Your task to perform on an android device: remove spam from my inbox in the gmail app Image 0: 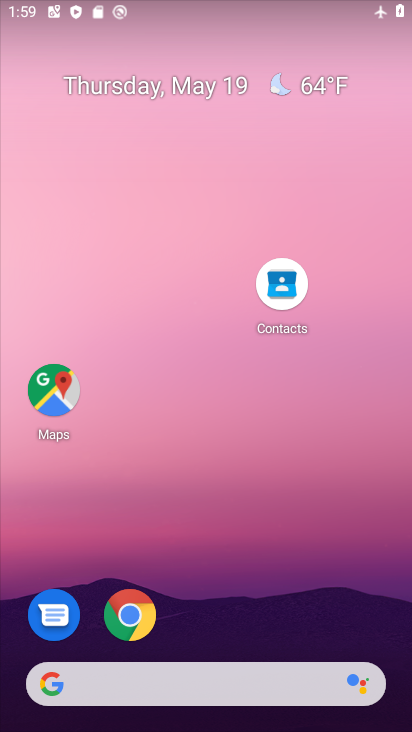
Step 0: drag from (188, 644) to (278, 84)
Your task to perform on an android device: remove spam from my inbox in the gmail app Image 1: 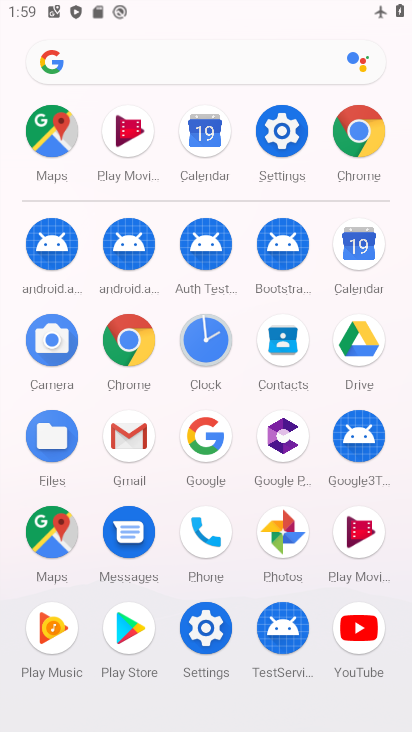
Step 1: click (133, 448)
Your task to perform on an android device: remove spam from my inbox in the gmail app Image 2: 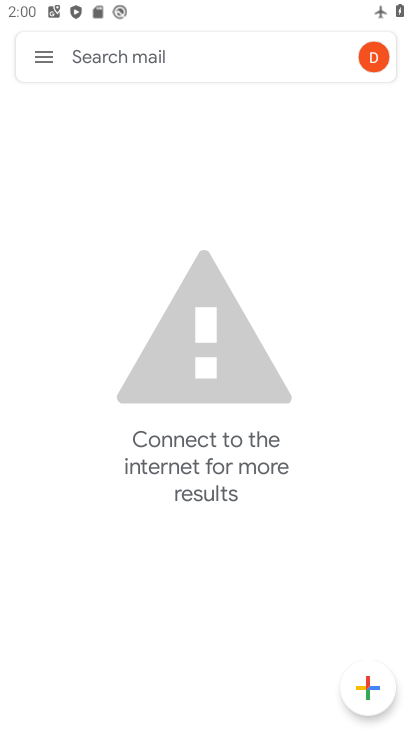
Step 2: click (44, 66)
Your task to perform on an android device: remove spam from my inbox in the gmail app Image 3: 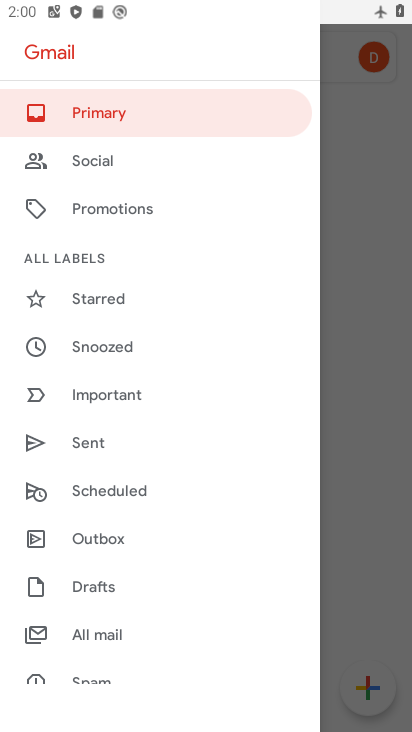
Step 3: drag from (138, 573) to (199, 203)
Your task to perform on an android device: remove spam from my inbox in the gmail app Image 4: 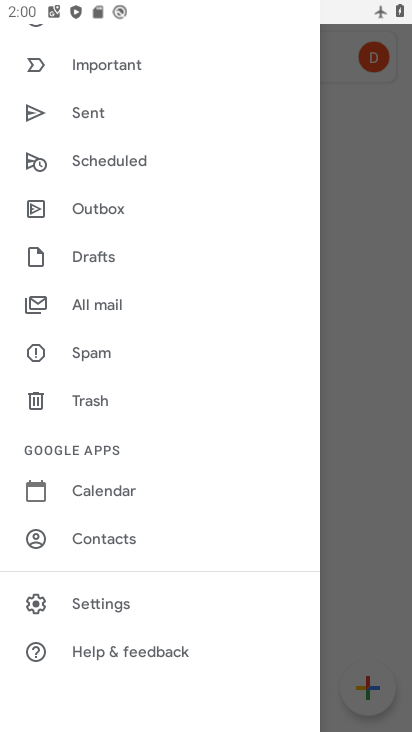
Step 4: click (118, 612)
Your task to perform on an android device: remove spam from my inbox in the gmail app Image 5: 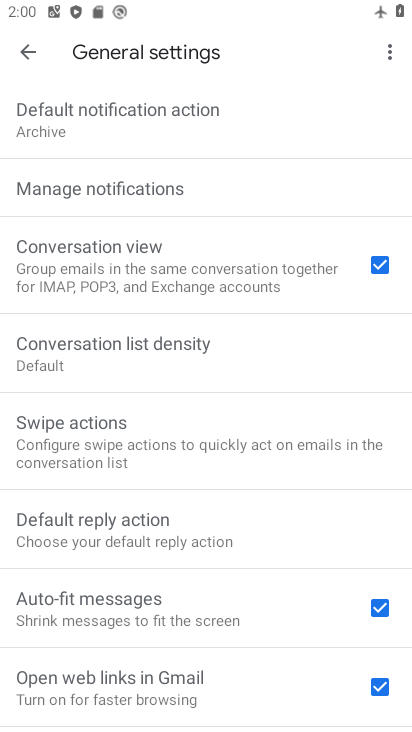
Step 5: click (28, 61)
Your task to perform on an android device: remove spam from my inbox in the gmail app Image 6: 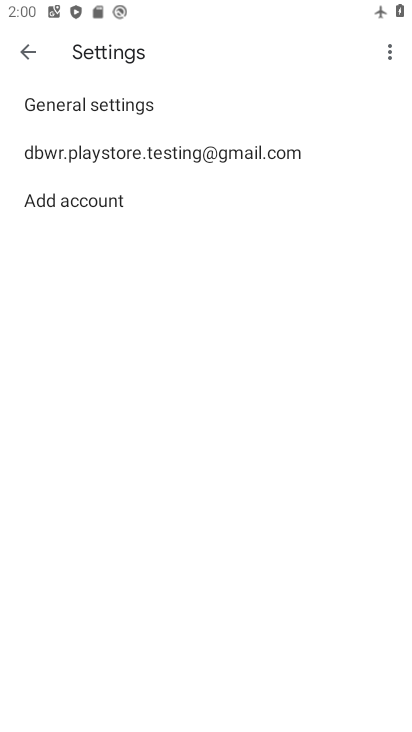
Step 6: click (23, 51)
Your task to perform on an android device: remove spam from my inbox in the gmail app Image 7: 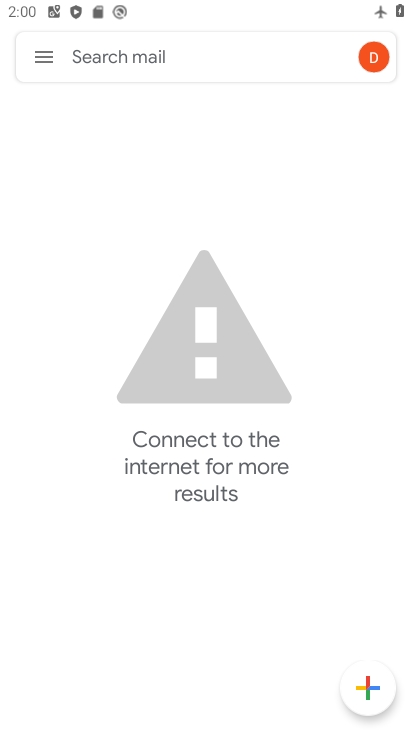
Step 7: click (49, 55)
Your task to perform on an android device: remove spam from my inbox in the gmail app Image 8: 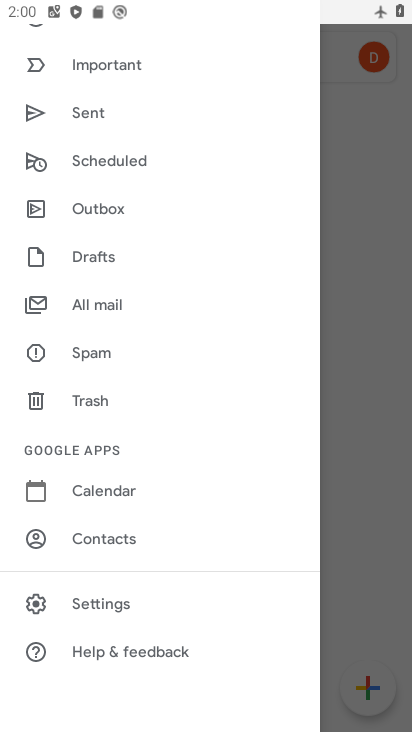
Step 8: task complete